Your task to perform on an android device: toggle translation in the chrome app Image 0: 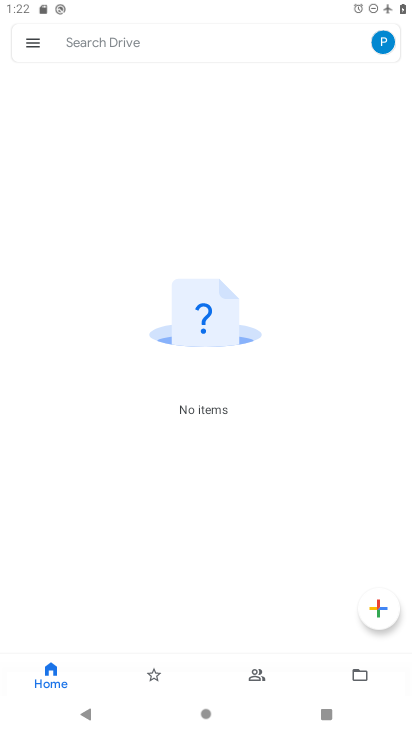
Step 0: press home button
Your task to perform on an android device: toggle translation in the chrome app Image 1: 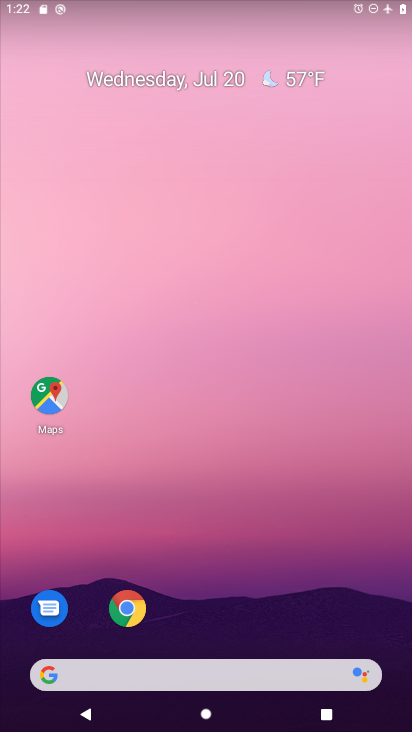
Step 1: click (131, 609)
Your task to perform on an android device: toggle translation in the chrome app Image 2: 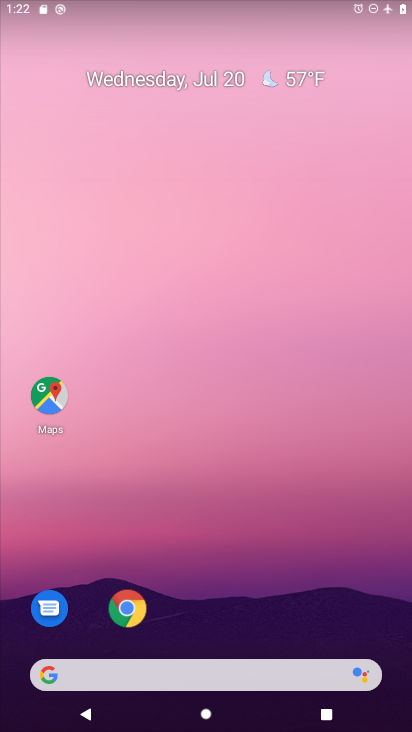
Step 2: click (131, 609)
Your task to perform on an android device: toggle translation in the chrome app Image 3: 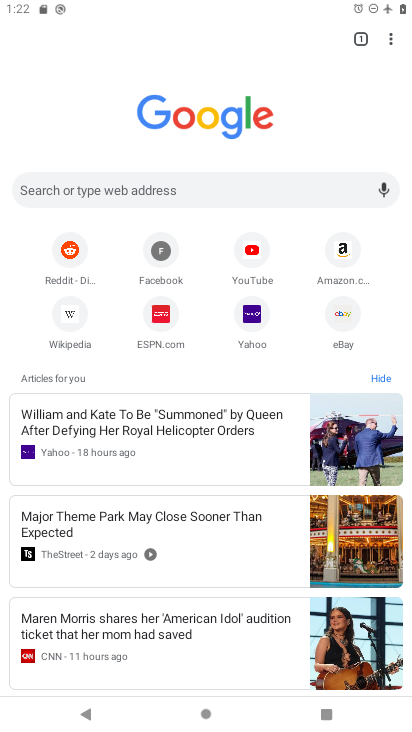
Step 3: click (389, 37)
Your task to perform on an android device: toggle translation in the chrome app Image 4: 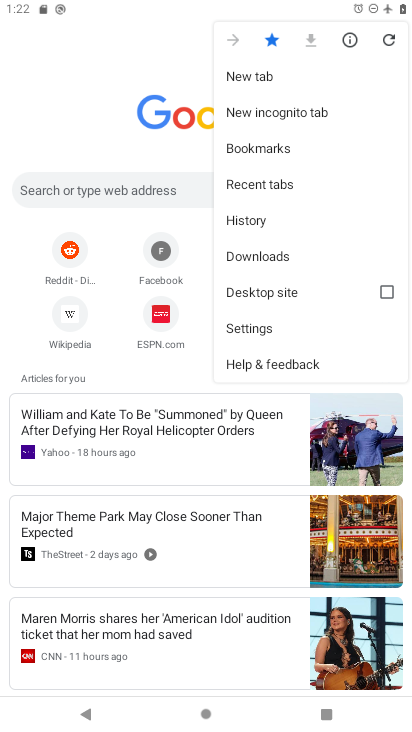
Step 4: click (246, 328)
Your task to perform on an android device: toggle translation in the chrome app Image 5: 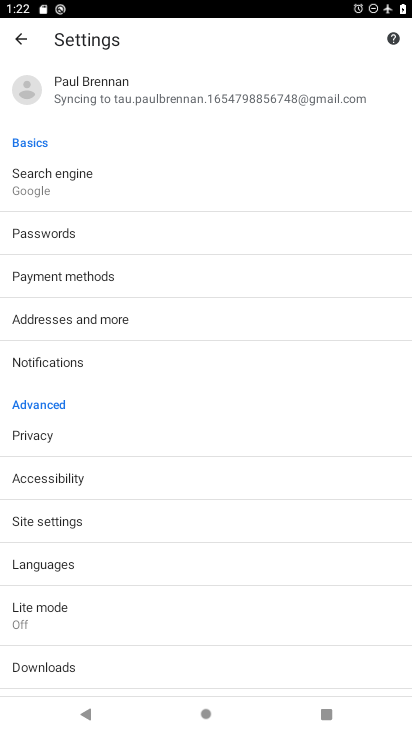
Step 5: click (87, 561)
Your task to perform on an android device: toggle translation in the chrome app Image 6: 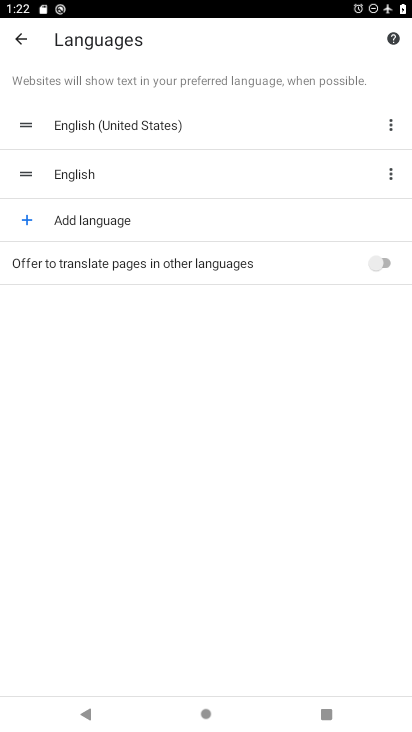
Step 6: click (379, 266)
Your task to perform on an android device: toggle translation in the chrome app Image 7: 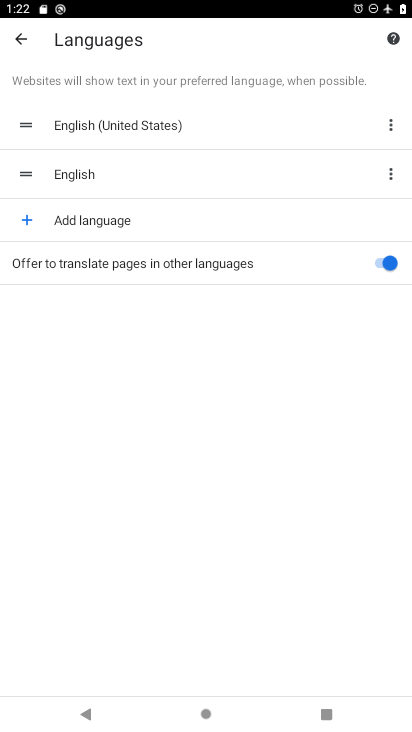
Step 7: task complete